Your task to perform on an android device: Open calendar and show me the fourth week of next month Image 0: 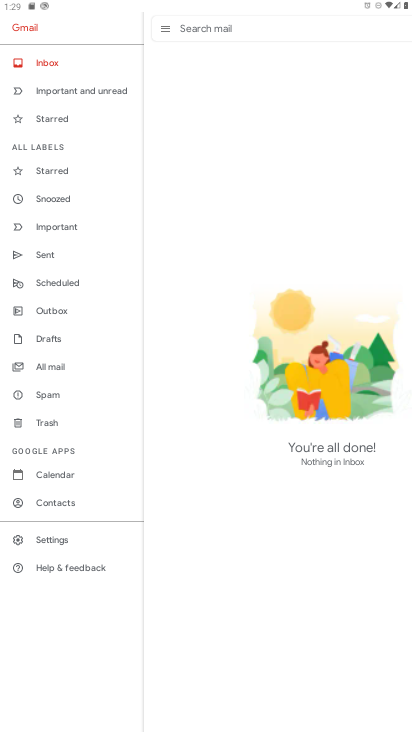
Step 0: press home button
Your task to perform on an android device: Open calendar and show me the fourth week of next month Image 1: 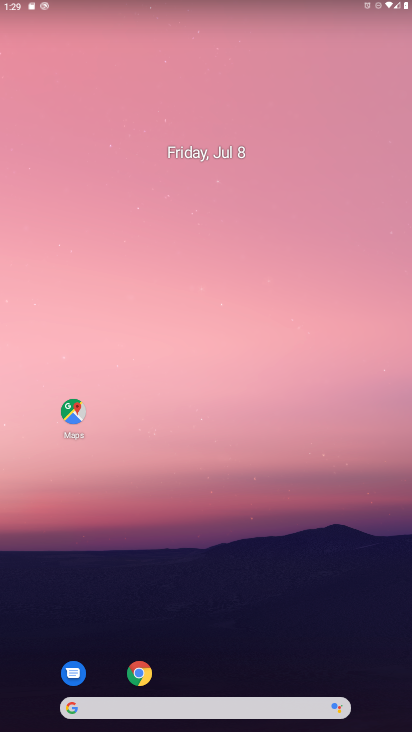
Step 1: drag from (393, 606) to (356, 214)
Your task to perform on an android device: Open calendar and show me the fourth week of next month Image 2: 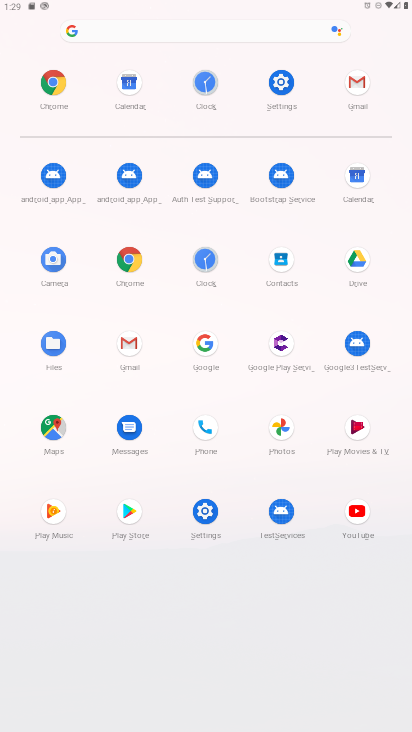
Step 2: click (356, 185)
Your task to perform on an android device: Open calendar and show me the fourth week of next month Image 3: 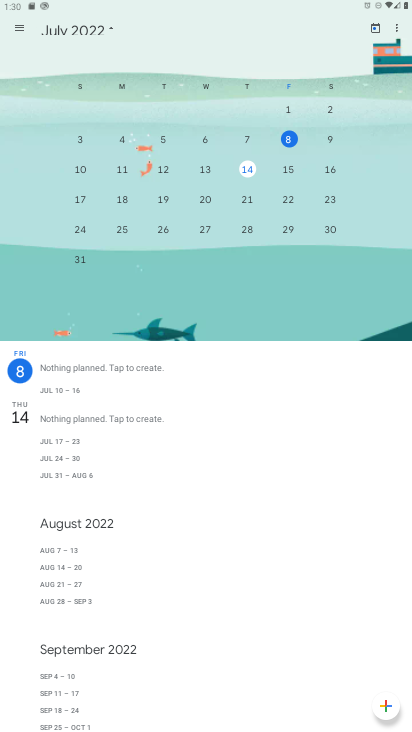
Step 3: click (103, 26)
Your task to perform on an android device: Open calendar and show me the fourth week of next month Image 4: 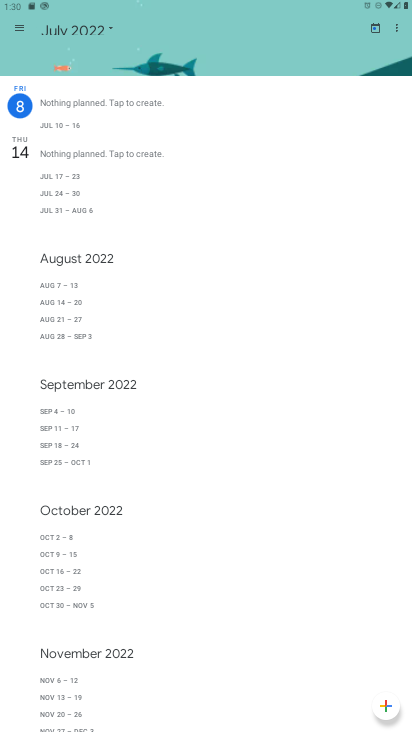
Step 4: click (110, 27)
Your task to perform on an android device: Open calendar and show me the fourth week of next month Image 5: 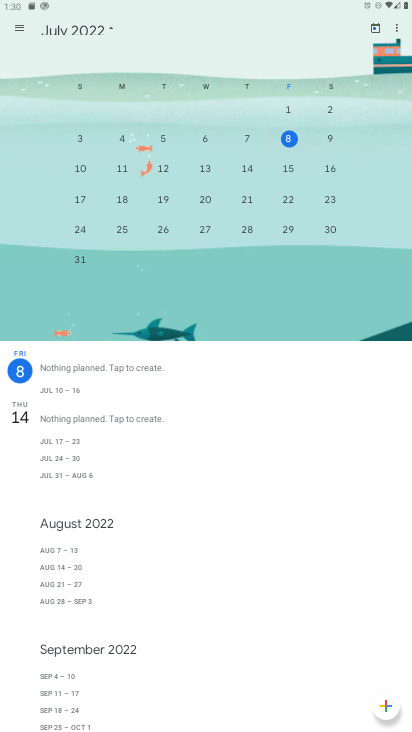
Step 5: drag from (377, 194) to (93, 201)
Your task to perform on an android device: Open calendar and show me the fourth week of next month Image 6: 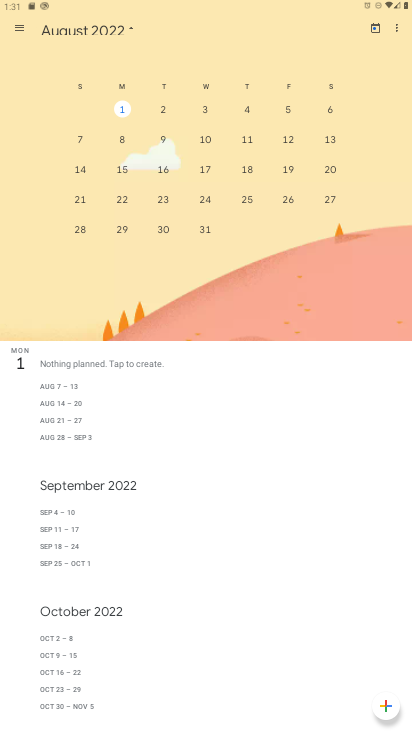
Step 6: click (158, 191)
Your task to perform on an android device: Open calendar and show me the fourth week of next month Image 7: 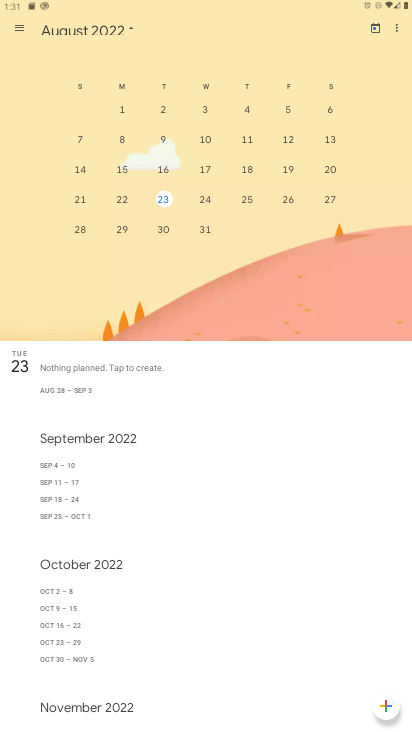
Step 7: task complete